Your task to perform on an android device: turn off translation in the chrome app Image 0: 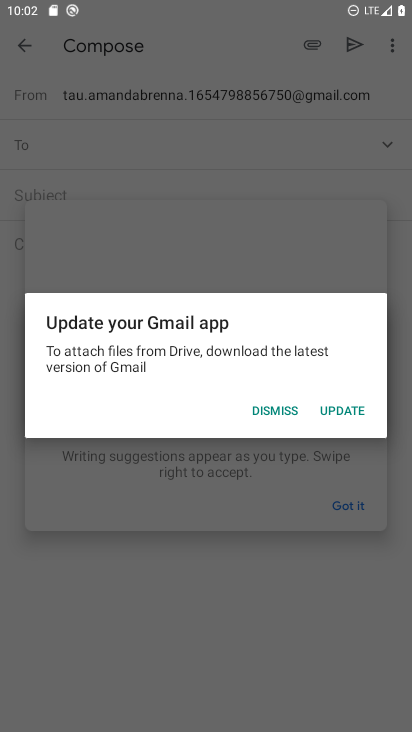
Step 0: click (137, 627)
Your task to perform on an android device: turn off translation in the chrome app Image 1: 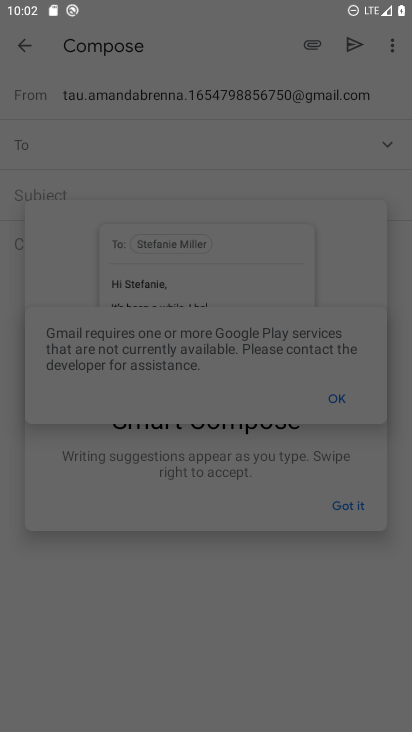
Step 1: press home button
Your task to perform on an android device: turn off translation in the chrome app Image 2: 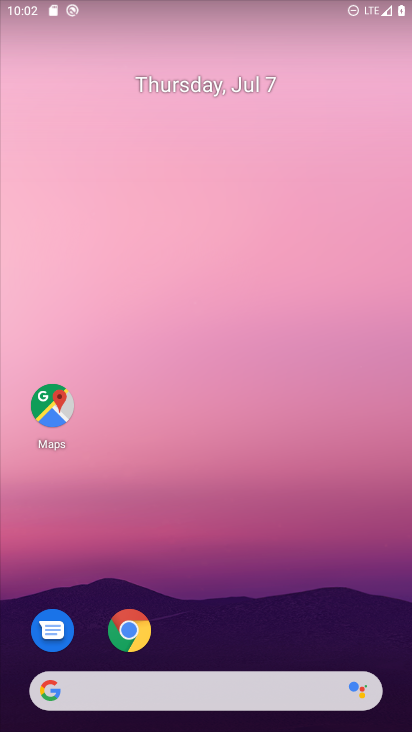
Step 2: click (126, 624)
Your task to perform on an android device: turn off translation in the chrome app Image 3: 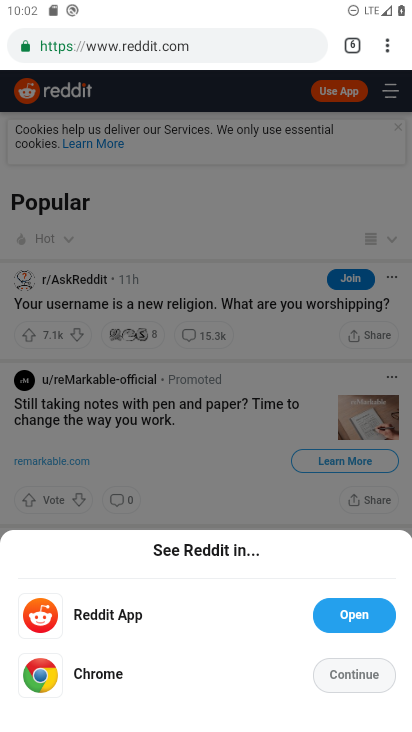
Step 3: click (372, 53)
Your task to perform on an android device: turn off translation in the chrome app Image 4: 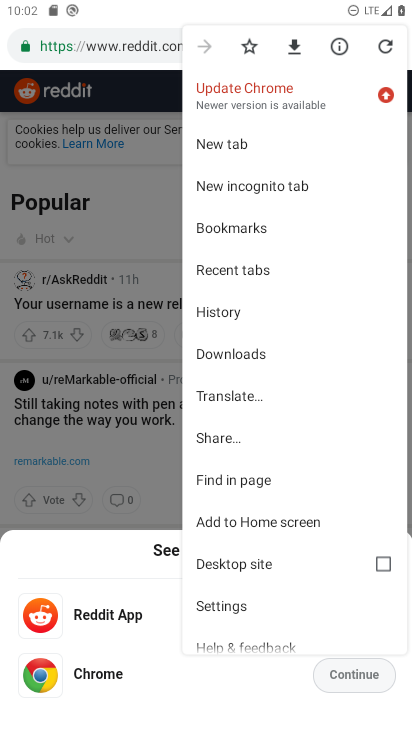
Step 4: click (253, 610)
Your task to perform on an android device: turn off translation in the chrome app Image 5: 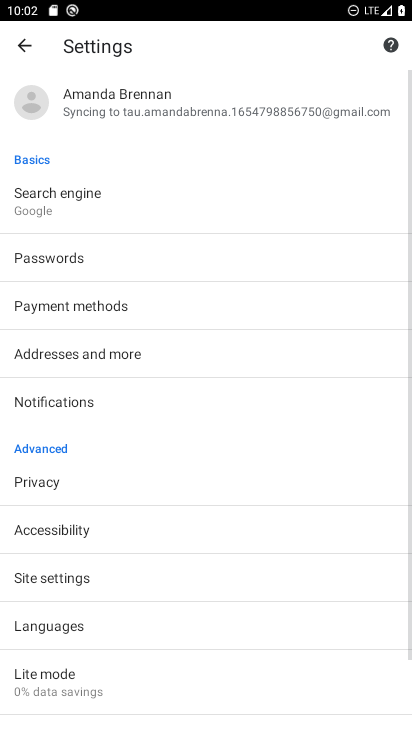
Step 5: click (96, 611)
Your task to perform on an android device: turn off translation in the chrome app Image 6: 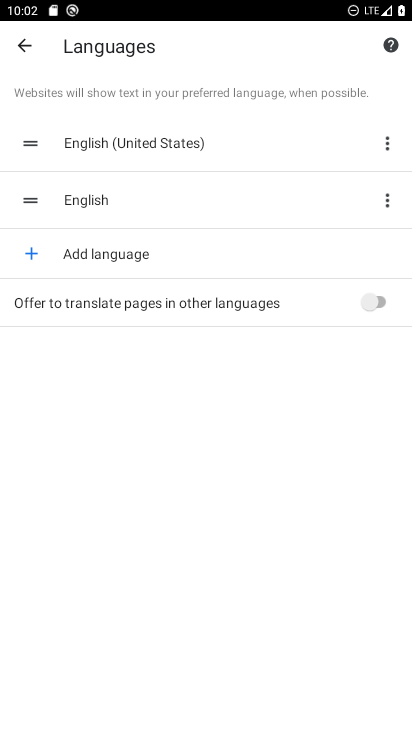
Step 6: task complete